Your task to perform on an android device: turn off picture-in-picture Image 0: 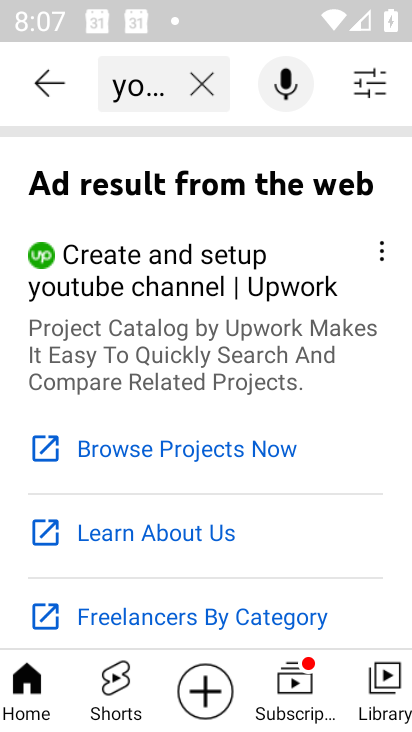
Step 0: press home button
Your task to perform on an android device: turn off picture-in-picture Image 1: 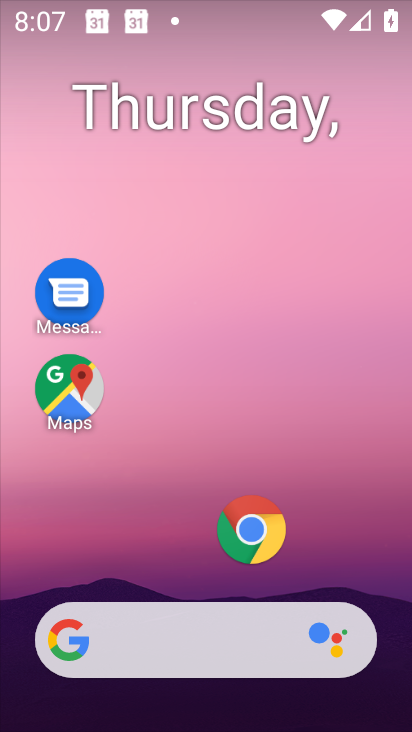
Step 1: click (250, 522)
Your task to perform on an android device: turn off picture-in-picture Image 2: 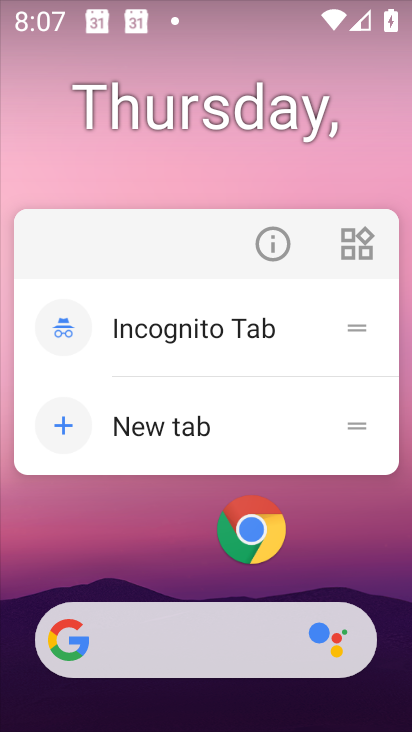
Step 2: click (275, 236)
Your task to perform on an android device: turn off picture-in-picture Image 3: 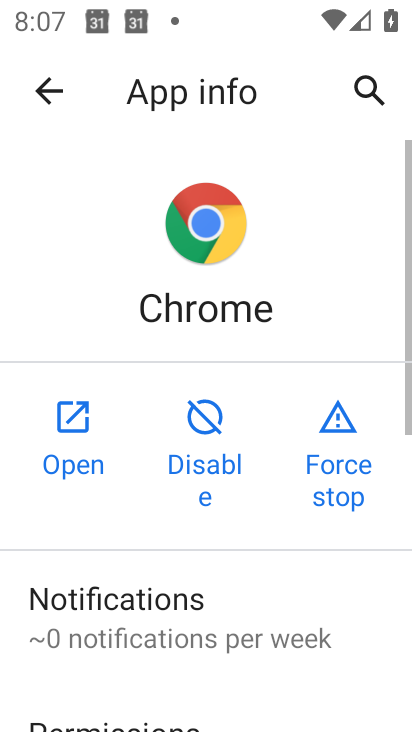
Step 3: drag from (162, 647) to (323, 3)
Your task to perform on an android device: turn off picture-in-picture Image 4: 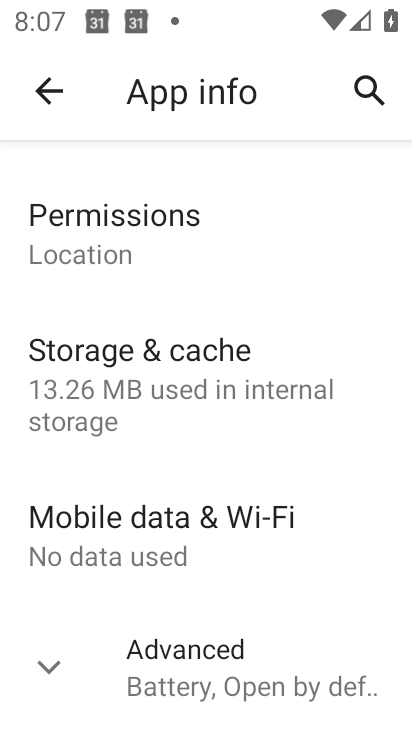
Step 4: click (92, 686)
Your task to perform on an android device: turn off picture-in-picture Image 5: 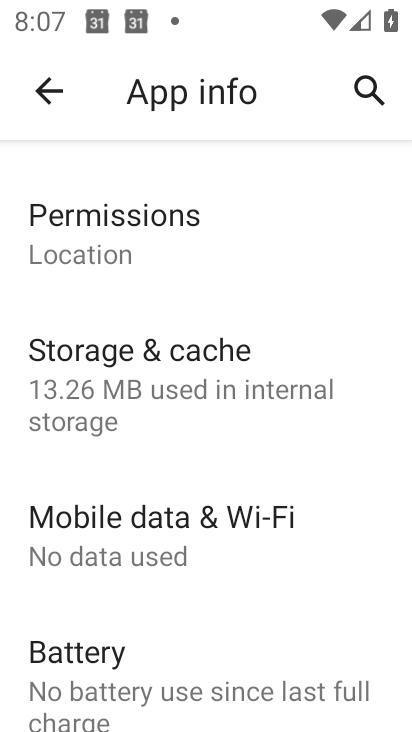
Step 5: drag from (92, 686) to (277, 164)
Your task to perform on an android device: turn off picture-in-picture Image 6: 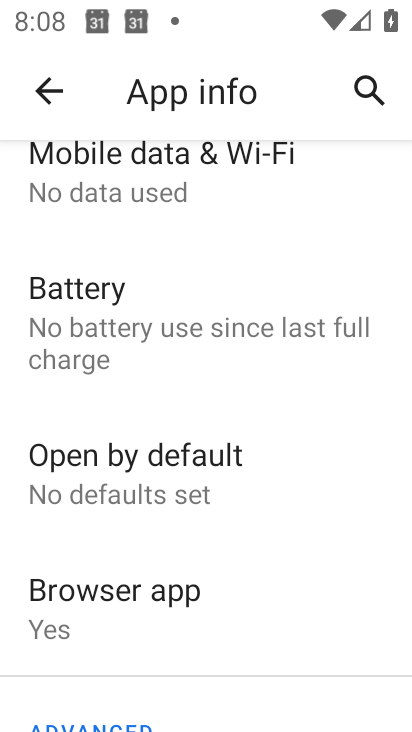
Step 6: drag from (132, 627) to (179, 300)
Your task to perform on an android device: turn off picture-in-picture Image 7: 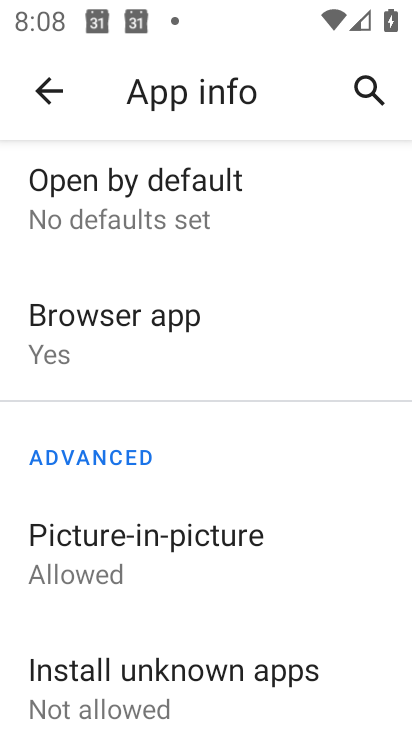
Step 7: click (159, 568)
Your task to perform on an android device: turn off picture-in-picture Image 8: 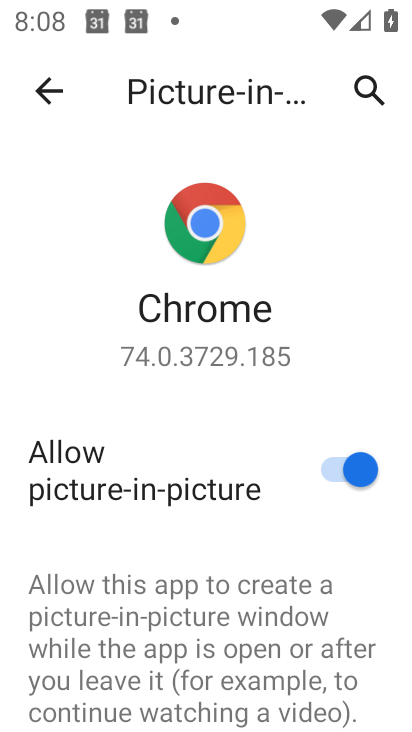
Step 8: click (338, 470)
Your task to perform on an android device: turn off picture-in-picture Image 9: 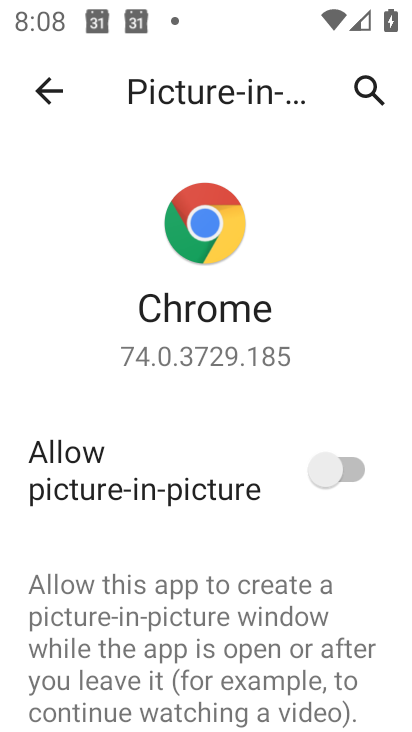
Step 9: task complete